Your task to perform on an android device: What's on my calendar today? Image 0: 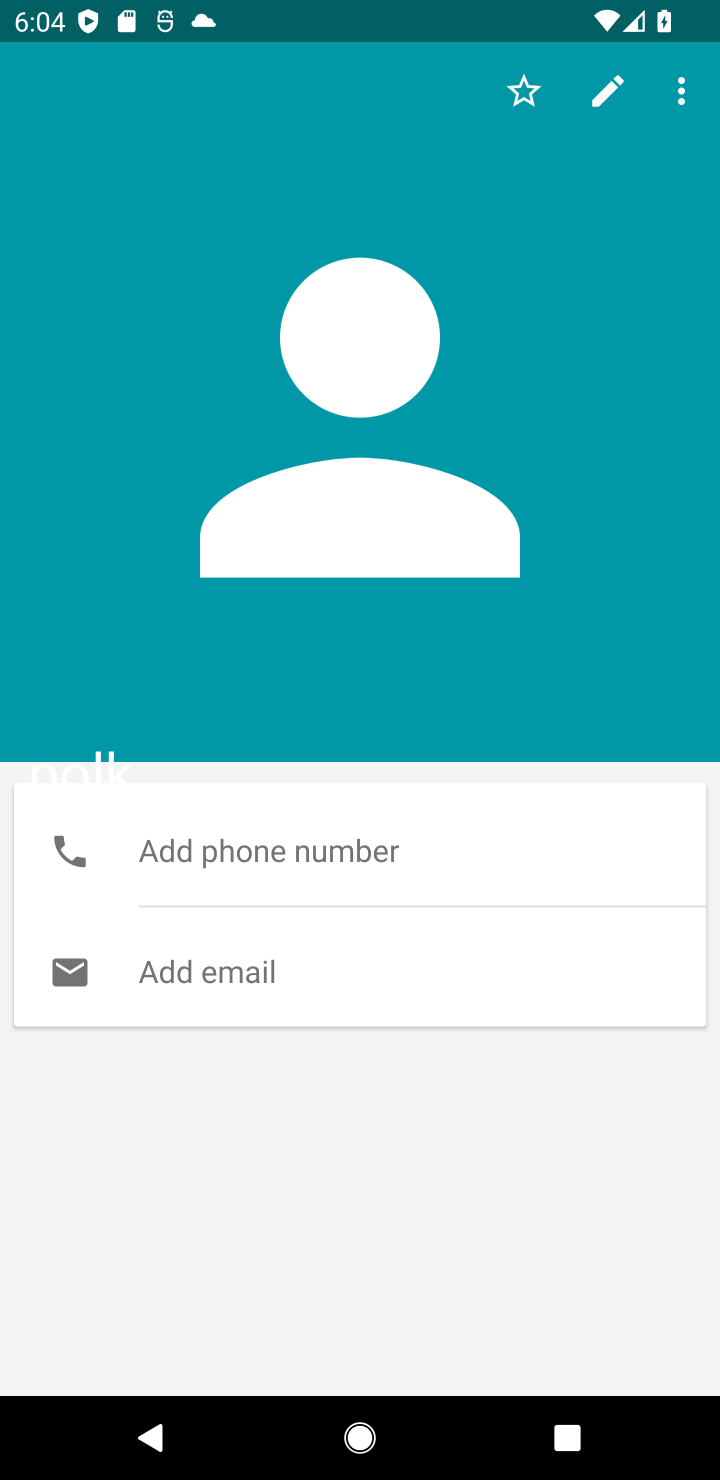
Step 0: press home button
Your task to perform on an android device: What's on my calendar today? Image 1: 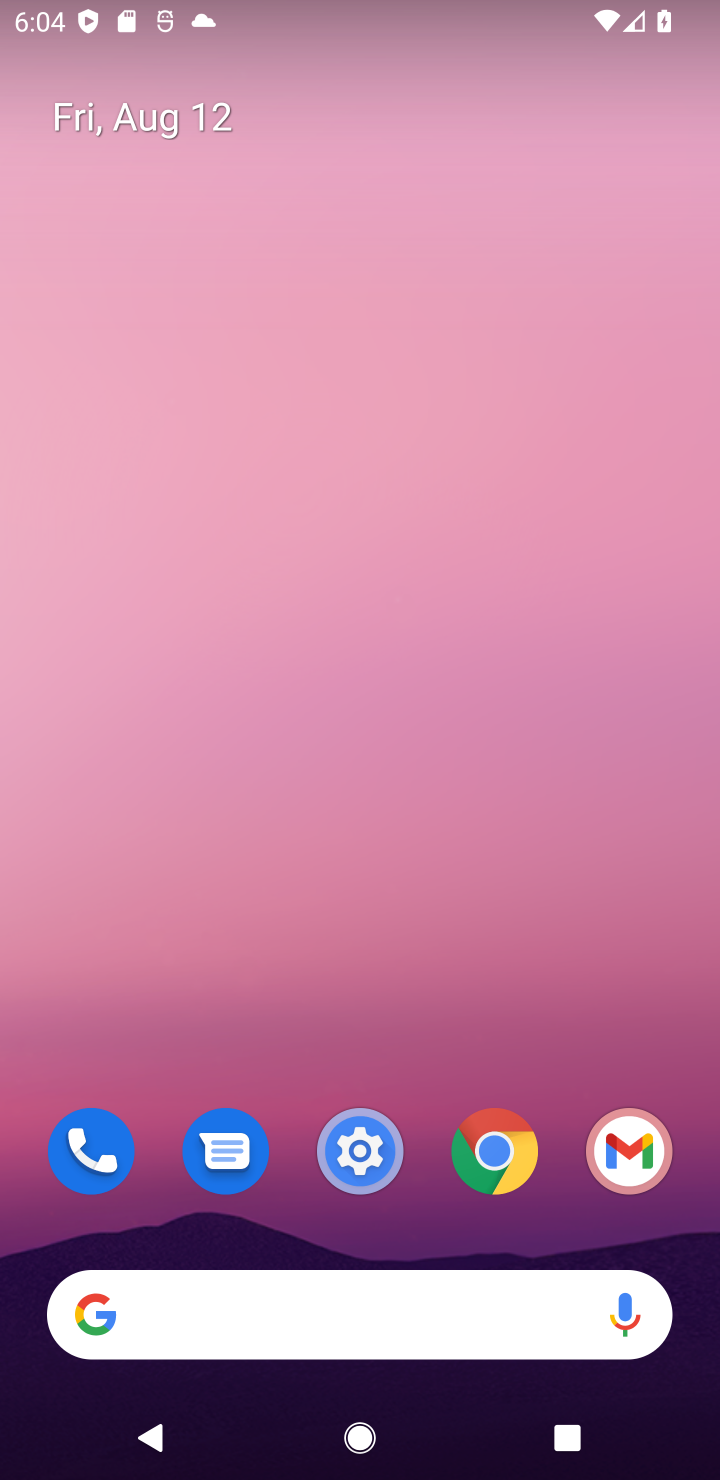
Step 1: drag from (423, 1034) to (499, 236)
Your task to perform on an android device: What's on my calendar today? Image 2: 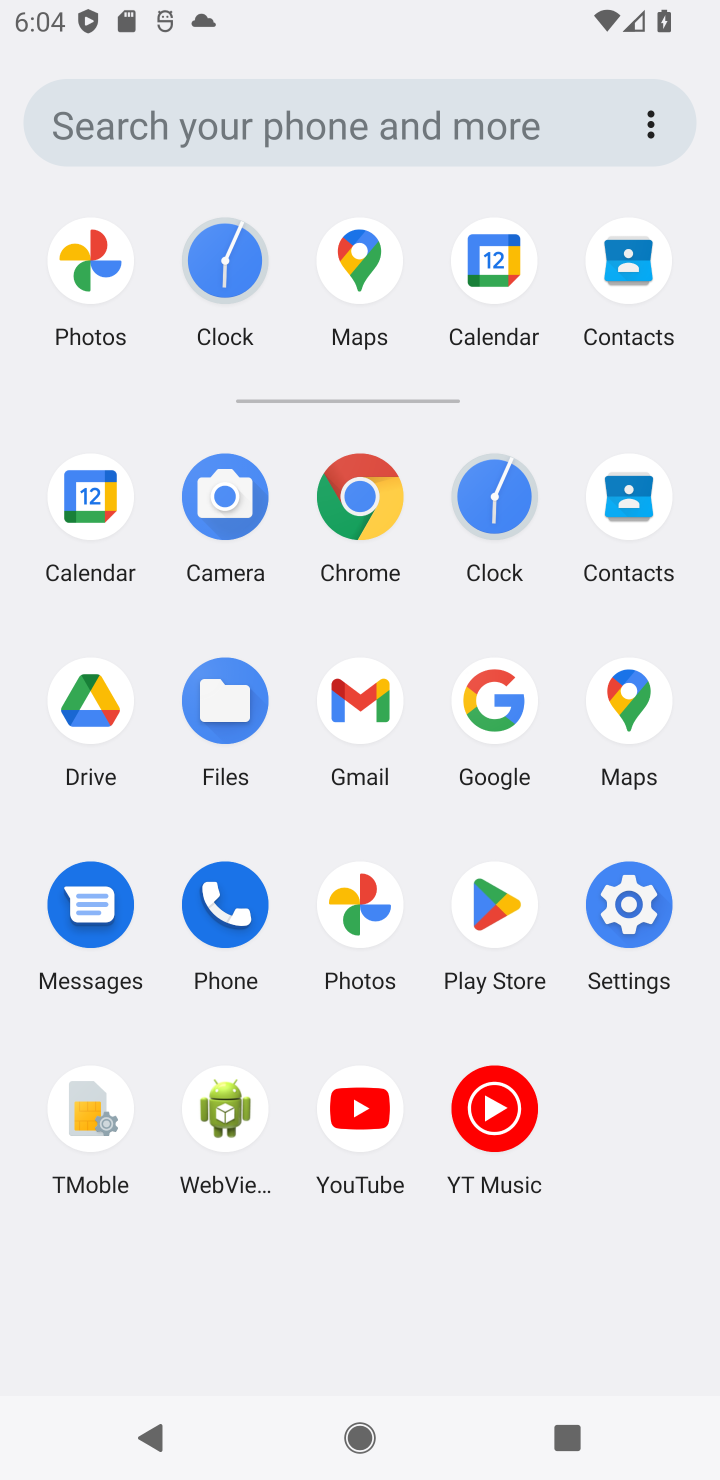
Step 2: click (96, 518)
Your task to perform on an android device: What's on my calendar today? Image 3: 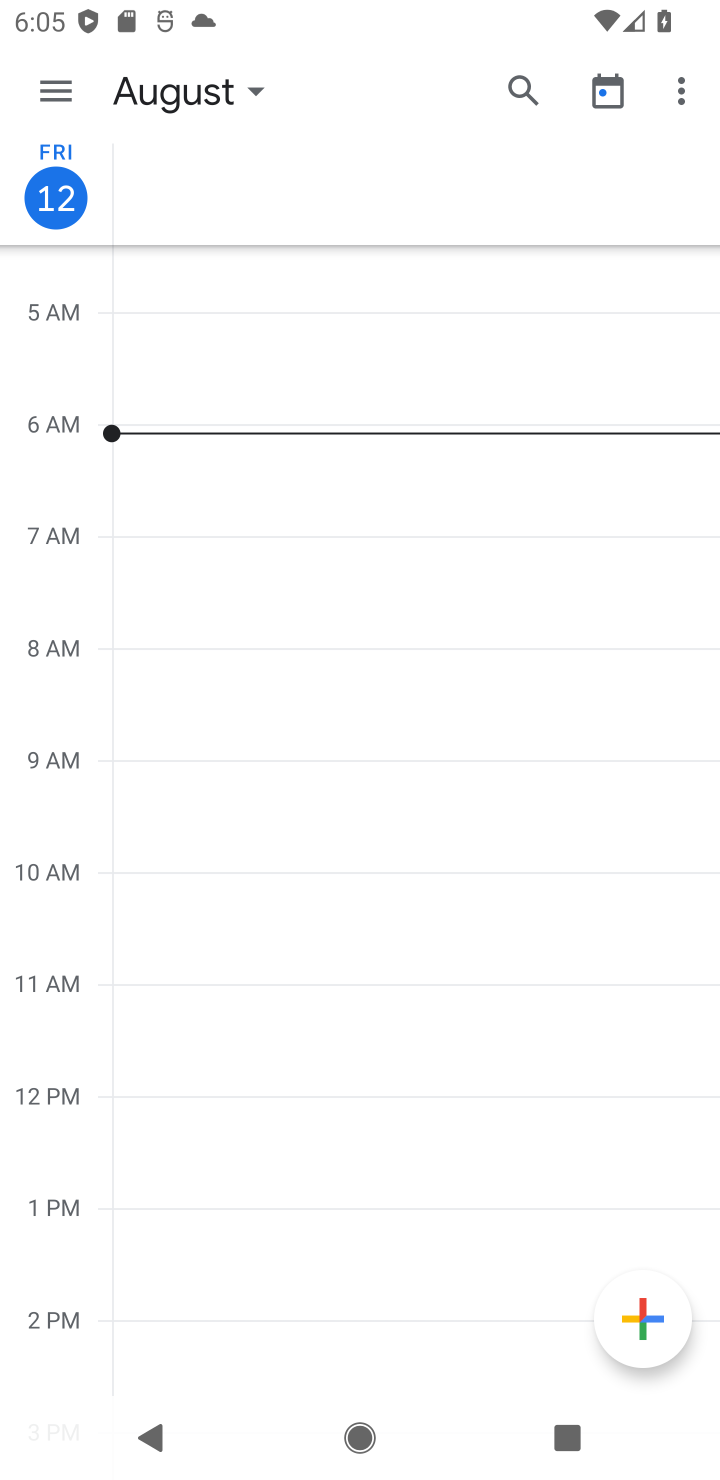
Step 3: task complete